Your task to perform on an android device: stop showing notifications on the lock screen Image 0: 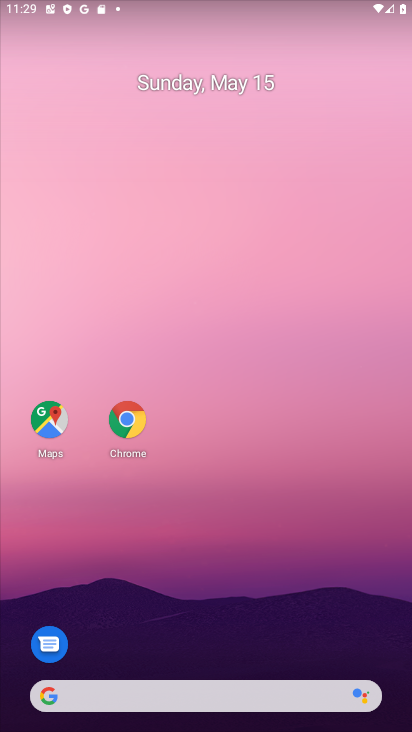
Step 0: click (349, 78)
Your task to perform on an android device: stop showing notifications on the lock screen Image 1: 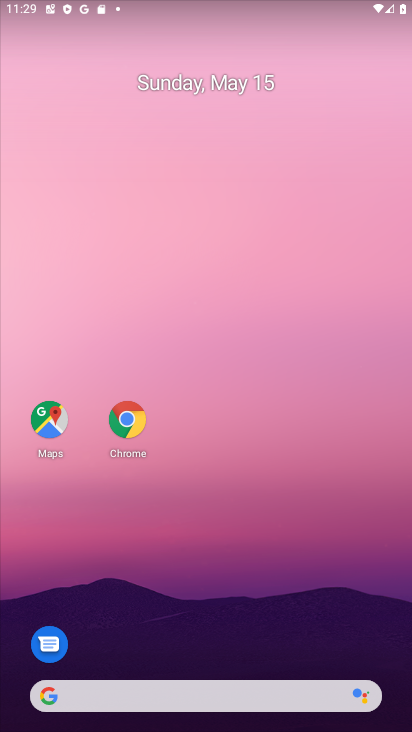
Step 1: drag from (217, 579) to (295, 67)
Your task to perform on an android device: stop showing notifications on the lock screen Image 2: 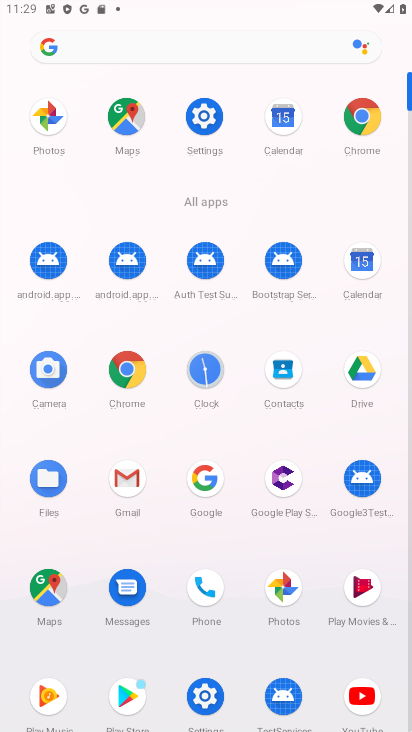
Step 2: click (200, 113)
Your task to perform on an android device: stop showing notifications on the lock screen Image 3: 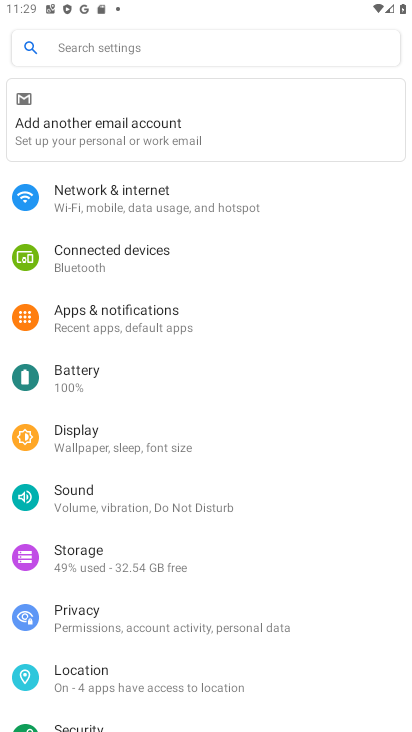
Step 3: click (182, 329)
Your task to perform on an android device: stop showing notifications on the lock screen Image 4: 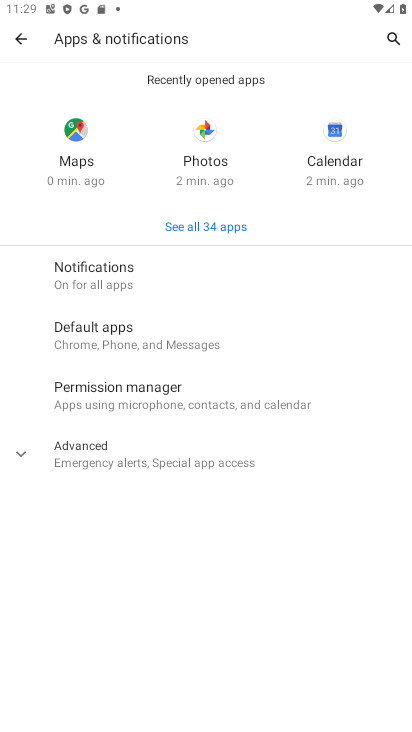
Step 4: click (189, 277)
Your task to perform on an android device: stop showing notifications on the lock screen Image 5: 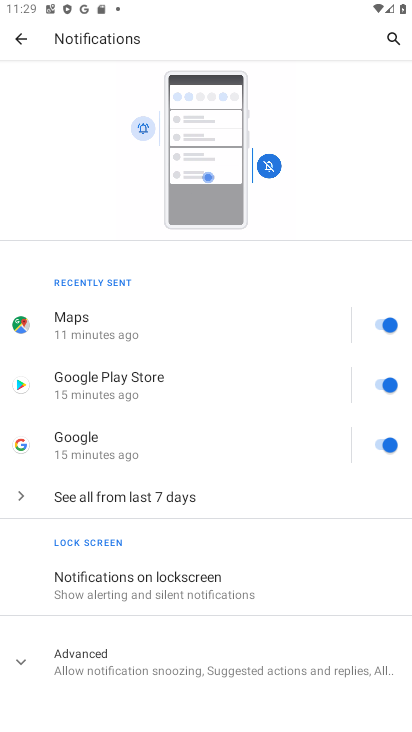
Step 5: click (217, 585)
Your task to perform on an android device: stop showing notifications on the lock screen Image 6: 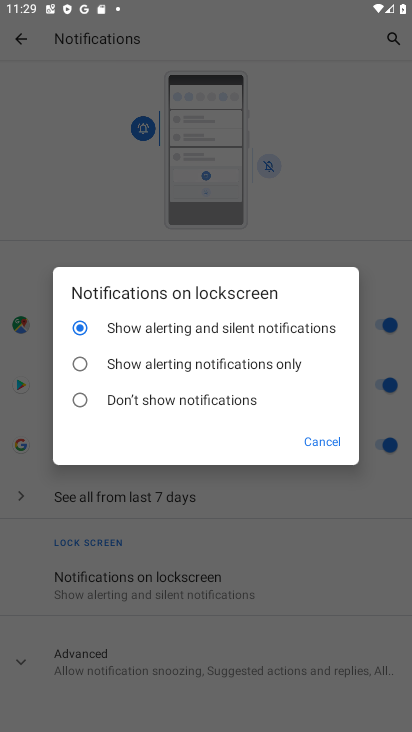
Step 6: click (130, 394)
Your task to perform on an android device: stop showing notifications on the lock screen Image 7: 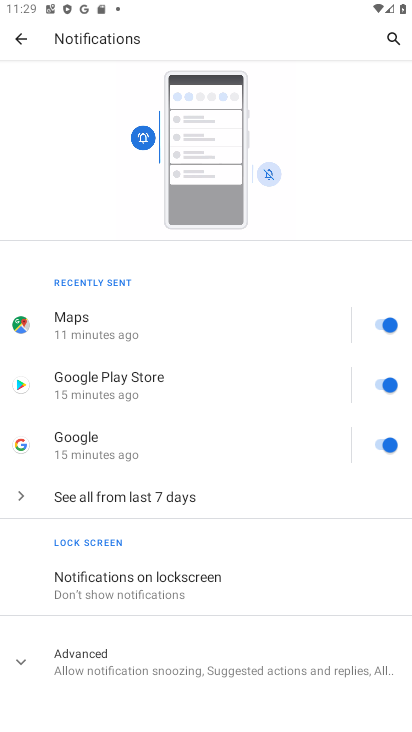
Step 7: task complete